Your task to perform on an android device: check android version Image 0: 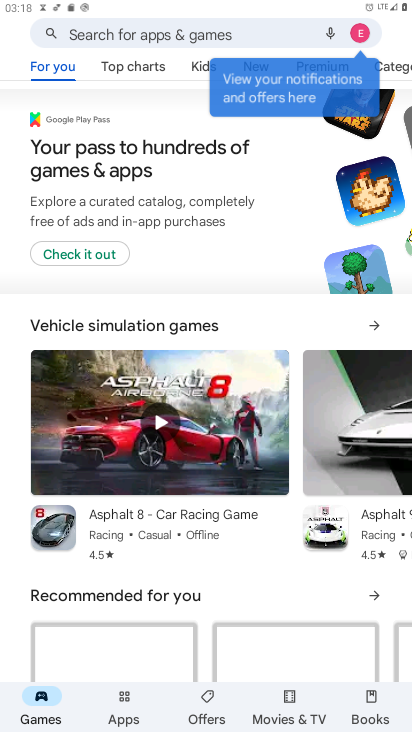
Step 0: press home button
Your task to perform on an android device: check android version Image 1: 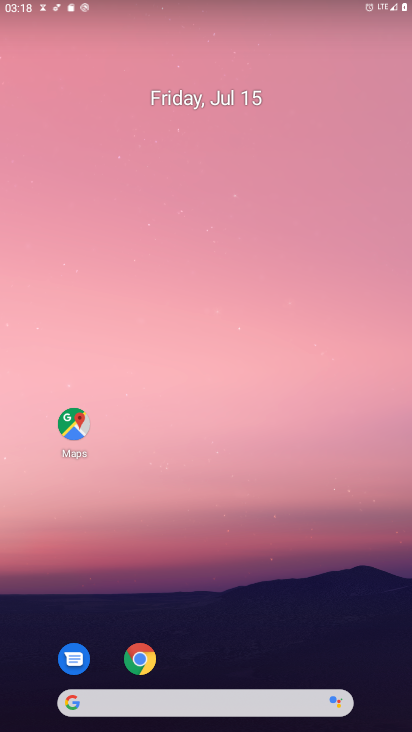
Step 1: drag from (158, 596) to (187, 272)
Your task to perform on an android device: check android version Image 2: 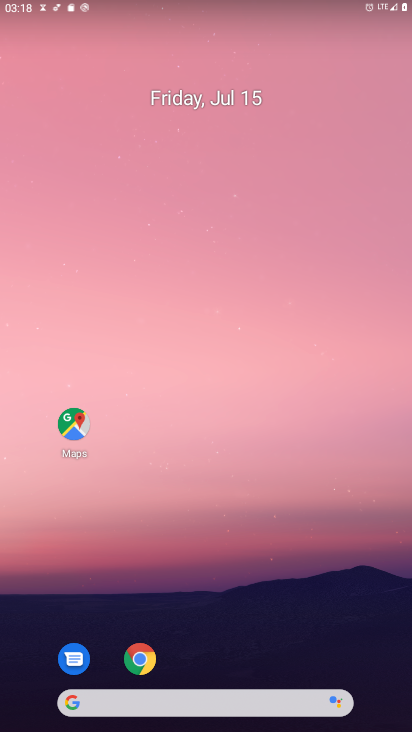
Step 2: drag from (297, 670) to (297, 268)
Your task to perform on an android device: check android version Image 3: 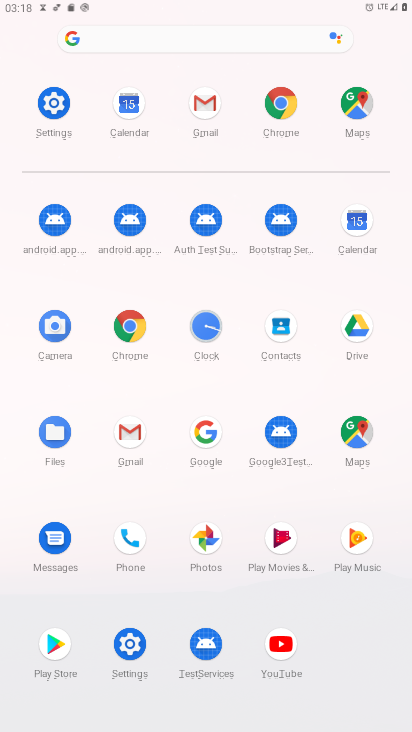
Step 3: click (49, 99)
Your task to perform on an android device: check android version Image 4: 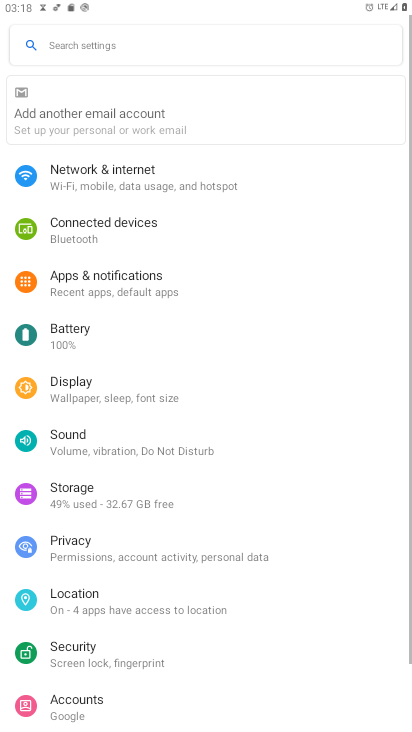
Step 4: drag from (128, 622) to (170, 227)
Your task to perform on an android device: check android version Image 5: 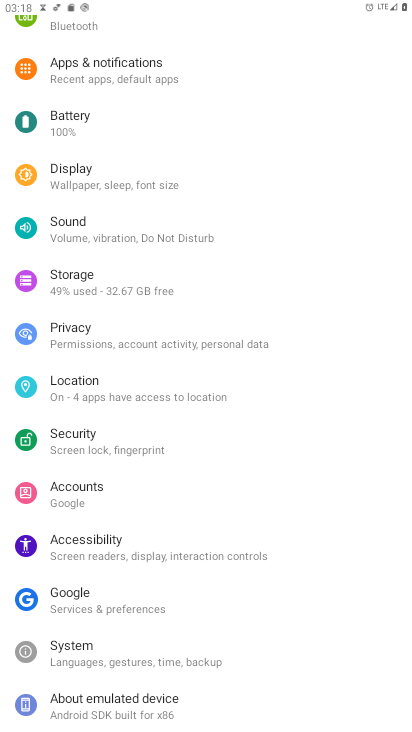
Step 5: click (107, 720)
Your task to perform on an android device: check android version Image 6: 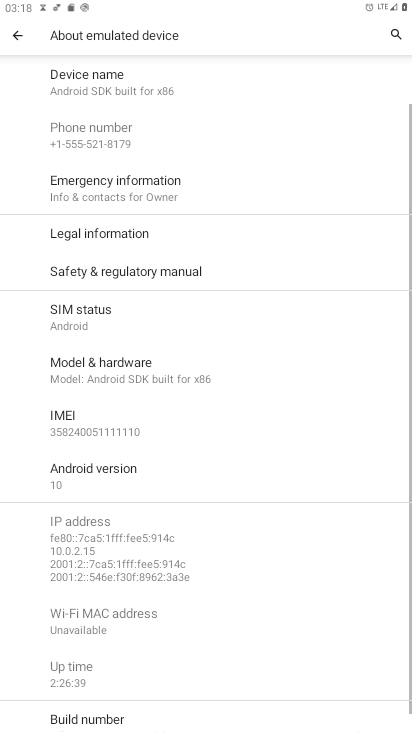
Step 6: click (76, 477)
Your task to perform on an android device: check android version Image 7: 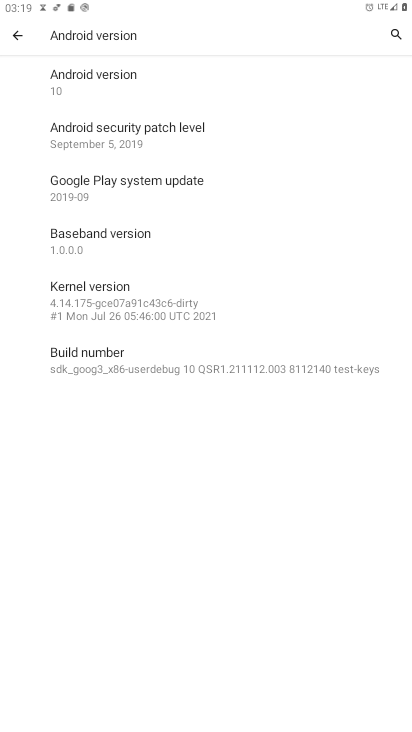
Step 7: task complete